Your task to perform on an android device: turn on notifications settings in the gmail app Image 0: 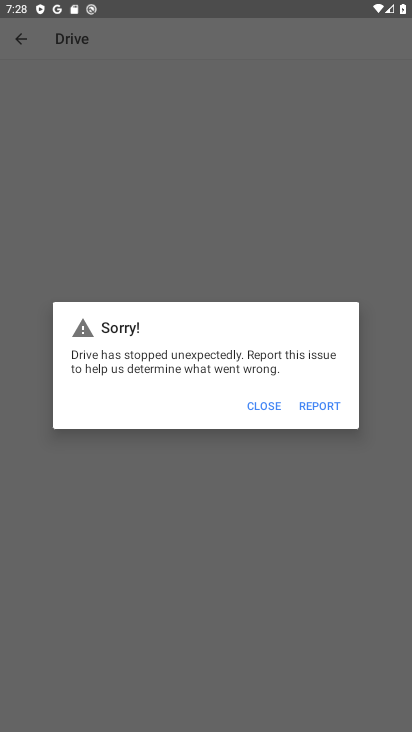
Step 0: press home button
Your task to perform on an android device: turn on notifications settings in the gmail app Image 1: 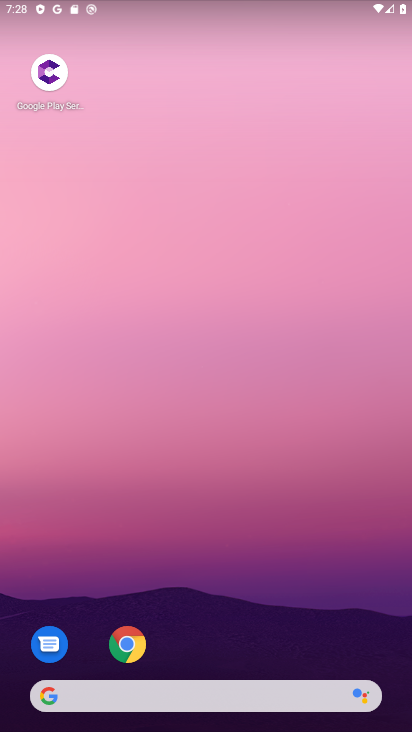
Step 1: drag from (187, 679) to (250, 283)
Your task to perform on an android device: turn on notifications settings in the gmail app Image 2: 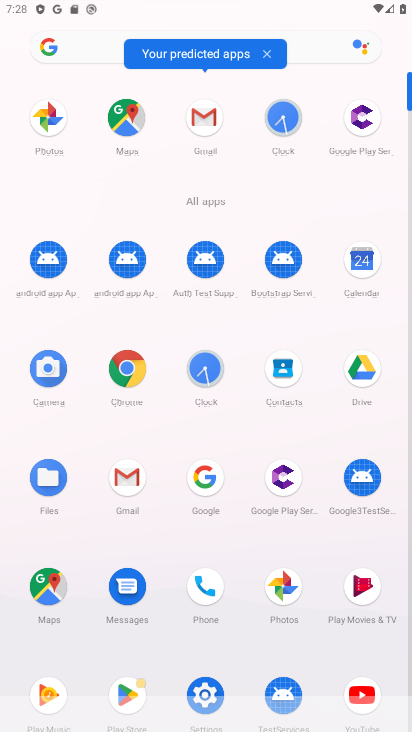
Step 2: click (206, 112)
Your task to perform on an android device: turn on notifications settings in the gmail app Image 3: 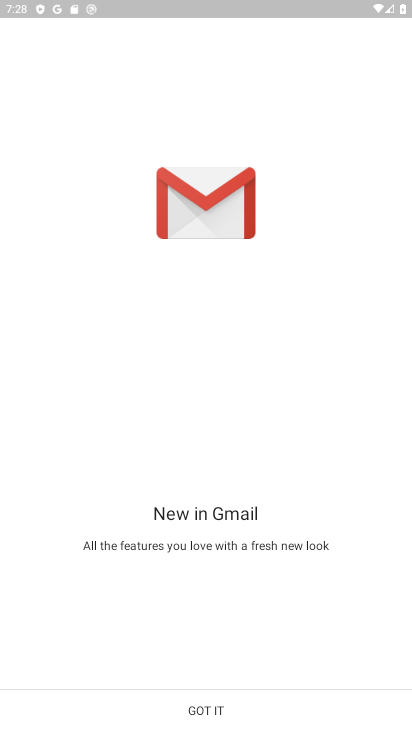
Step 3: click (205, 703)
Your task to perform on an android device: turn on notifications settings in the gmail app Image 4: 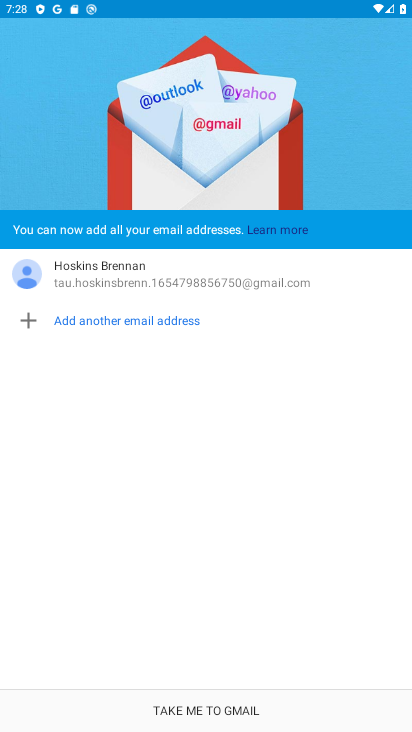
Step 4: click (208, 710)
Your task to perform on an android device: turn on notifications settings in the gmail app Image 5: 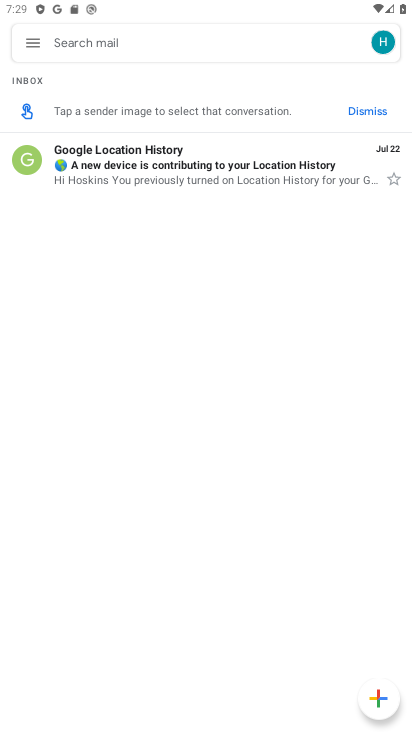
Step 5: click (34, 40)
Your task to perform on an android device: turn on notifications settings in the gmail app Image 6: 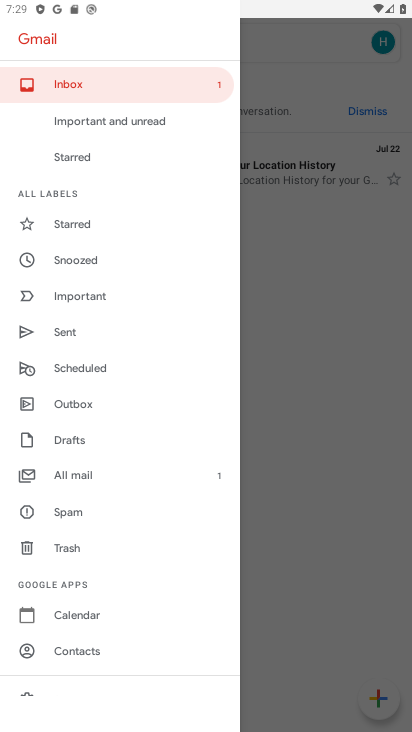
Step 6: drag from (76, 666) to (78, 187)
Your task to perform on an android device: turn on notifications settings in the gmail app Image 7: 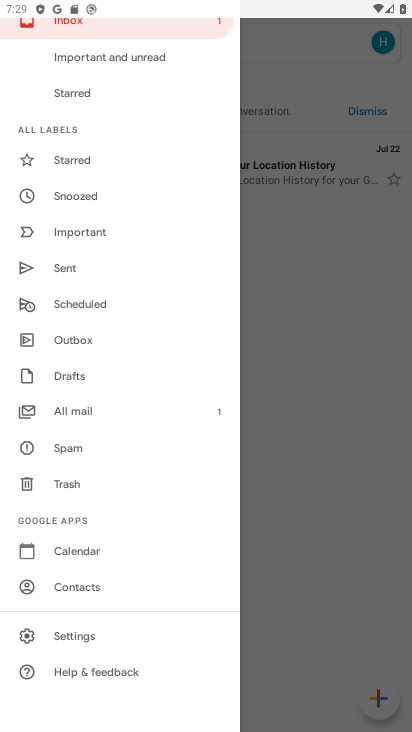
Step 7: click (88, 635)
Your task to perform on an android device: turn on notifications settings in the gmail app Image 8: 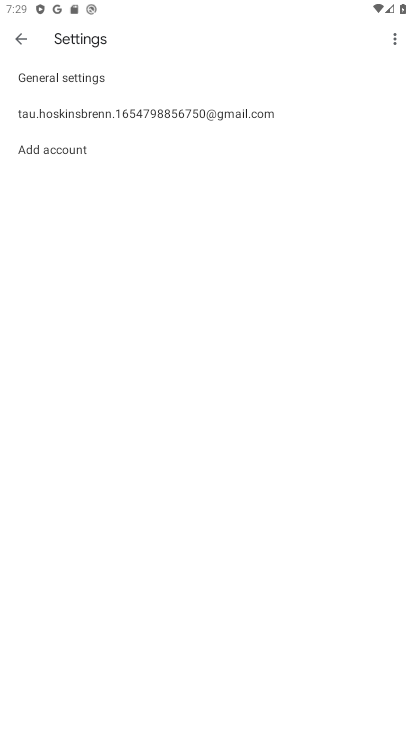
Step 8: click (87, 110)
Your task to perform on an android device: turn on notifications settings in the gmail app Image 9: 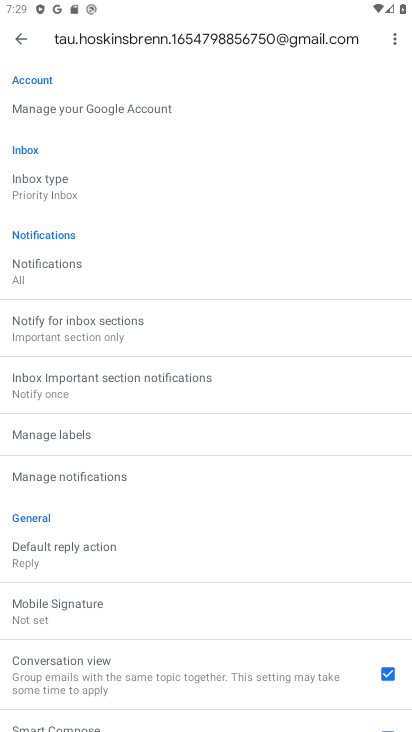
Step 9: click (61, 483)
Your task to perform on an android device: turn on notifications settings in the gmail app Image 10: 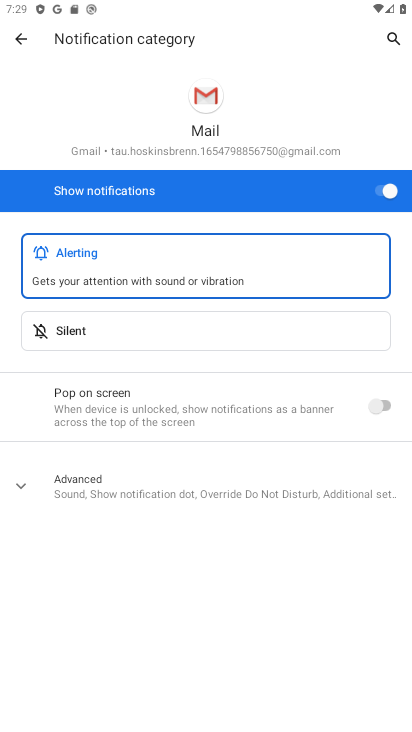
Step 10: task complete